Your task to perform on an android device: Open Amazon Image 0: 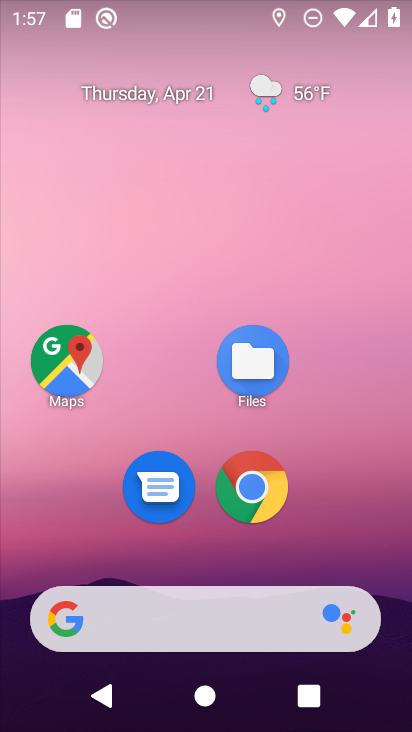
Step 0: drag from (341, 522) to (347, 128)
Your task to perform on an android device: Open Amazon Image 1: 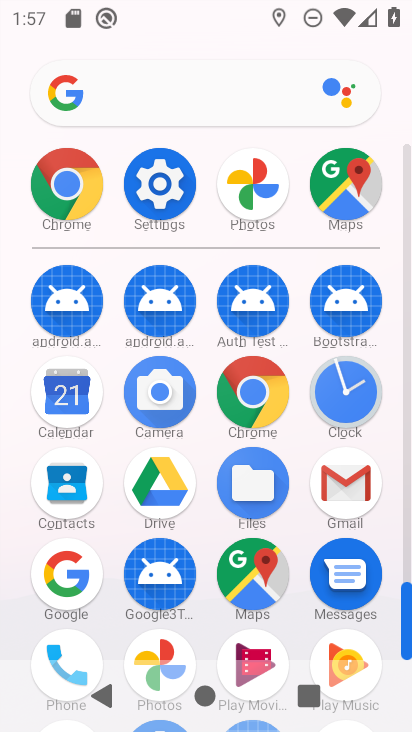
Step 1: click (260, 397)
Your task to perform on an android device: Open Amazon Image 2: 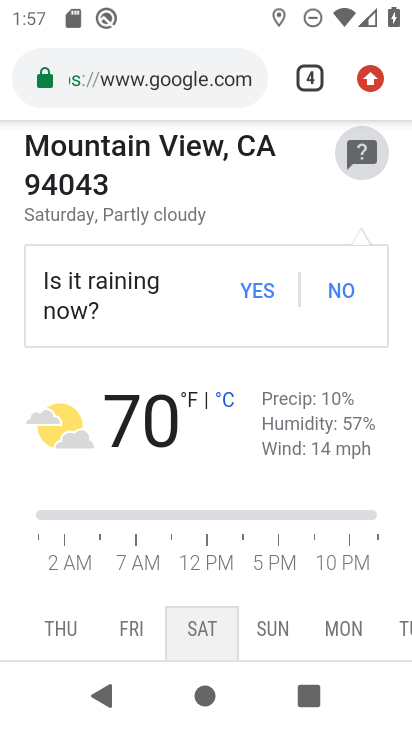
Step 2: click (218, 74)
Your task to perform on an android device: Open Amazon Image 3: 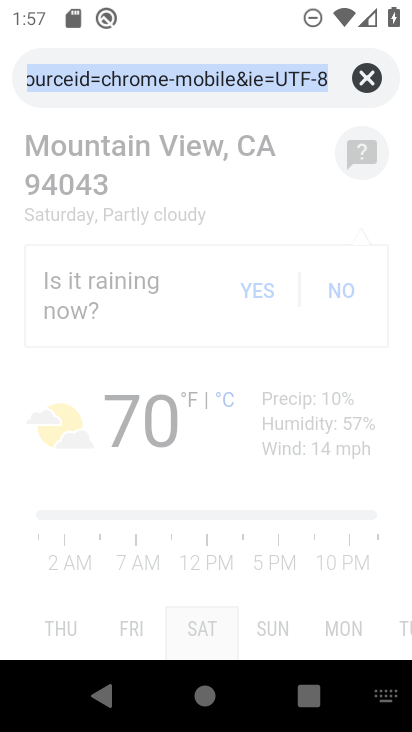
Step 3: click (361, 80)
Your task to perform on an android device: Open Amazon Image 4: 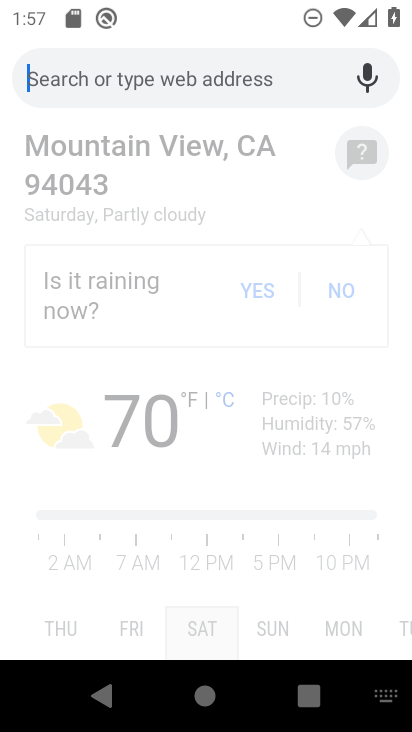
Step 4: type "amazon"
Your task to perform on an android device: Open Amazon Image 5: 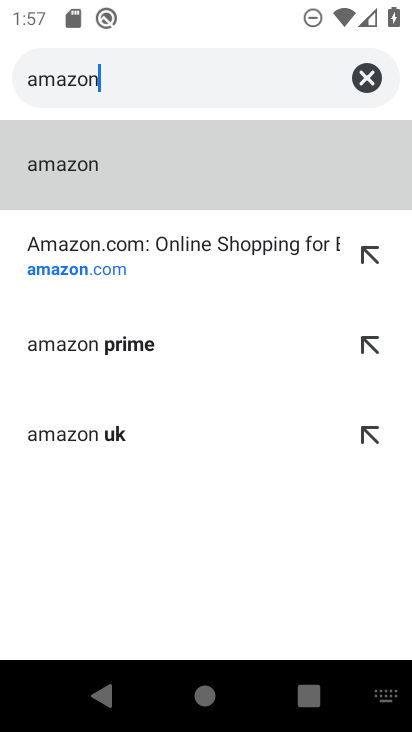
Step 5: click (48, 264)
Your task to perform on an android device: Open Amazon Image 6: 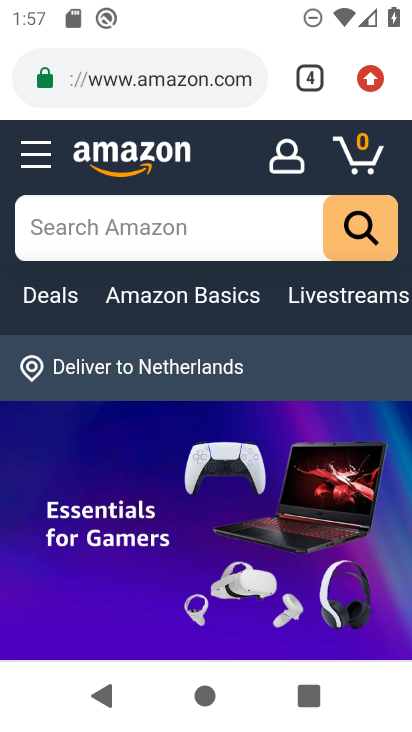
Step 6: task complete